Your task to perform on an android device: toggle location history Image 0: 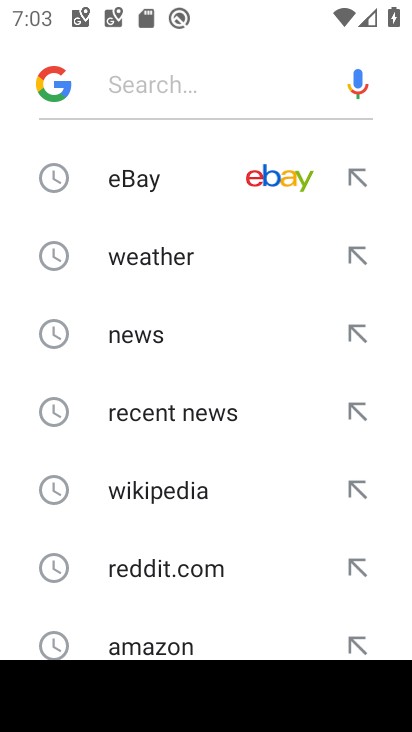
Step 0: press home button
Your task to perform on an android device: toggle location history Image 1: 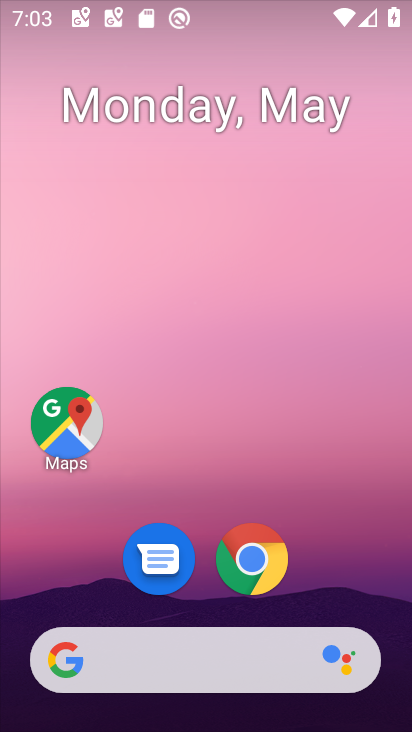
Step 1: drag from (398, 609) to (281, 15)
Your task to perform on an android device: toggle location history Image 2: 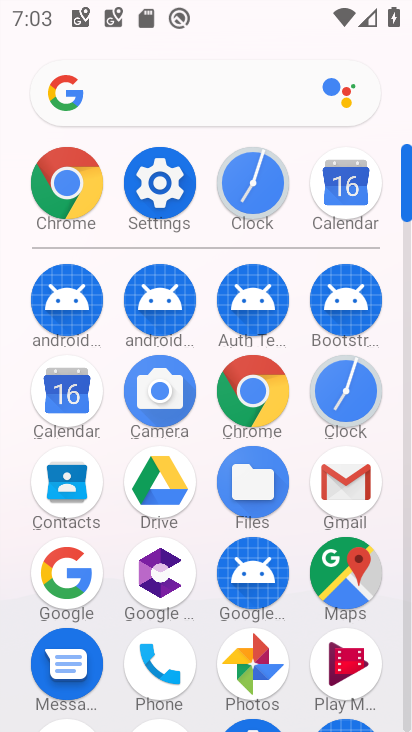
Step 2: click (144, 202)
Your task to perform on an android device: toggle location history Image 3: 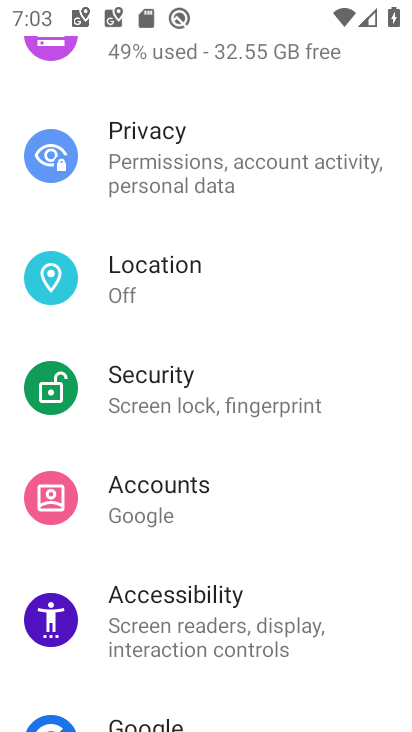
Step 3: click (171, 295)
Your task to perform on an android device: toggle location history Image 4: 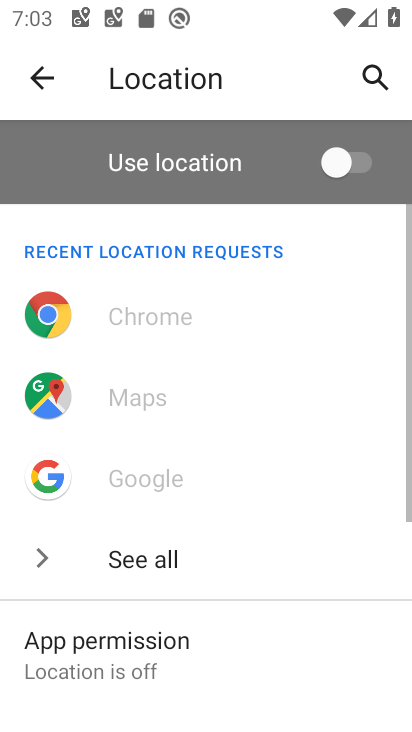
Step 4: drag from (116, 611) to (166, 184)
Your task to perform on an android device: toggle location history Image 5: 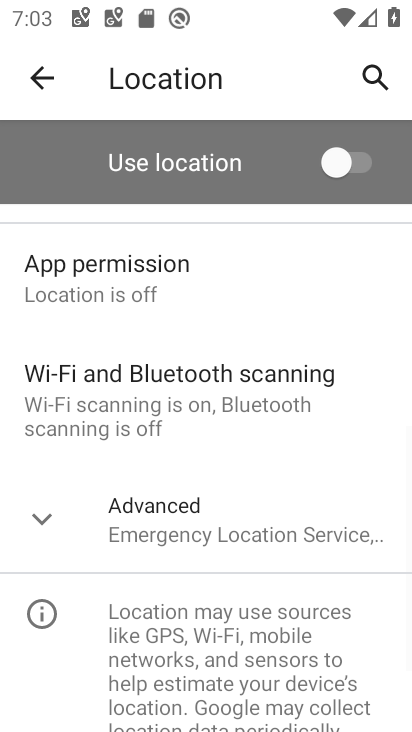
Step 5: click (209, 534)
Your task to perform on an android device: toggle location history Image 6: 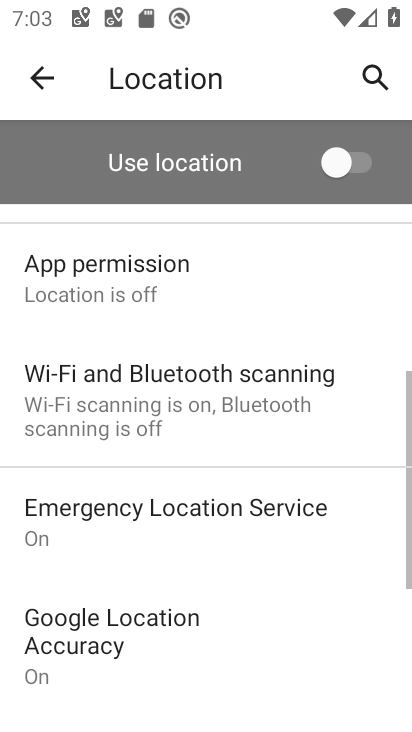
Step 6: drag from (167, 609) to (240, 271)
Your task to perform on an android device: toggle location history Image 7: 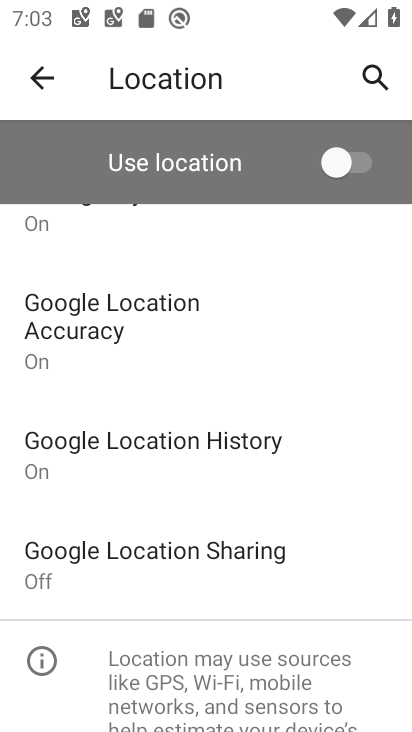
Step 7: click (160, 453)
Your task to perform on an android device: toggle location history Image 8: 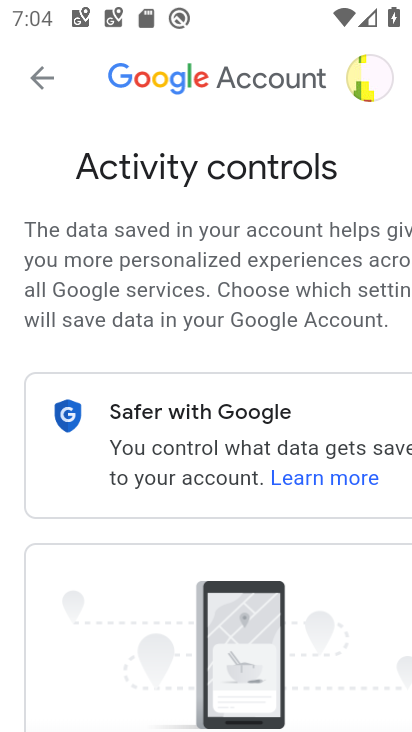
Step 8: drag from (277, 601) to (270, 111)
Your task to perform on an android device: toggle location history Image 9: 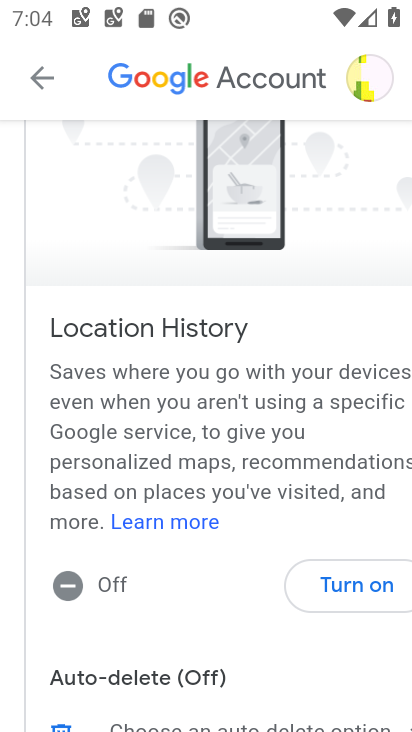
Step 9: click (350, 576)
Your task to perform on an android device: toggle location history Image 10: 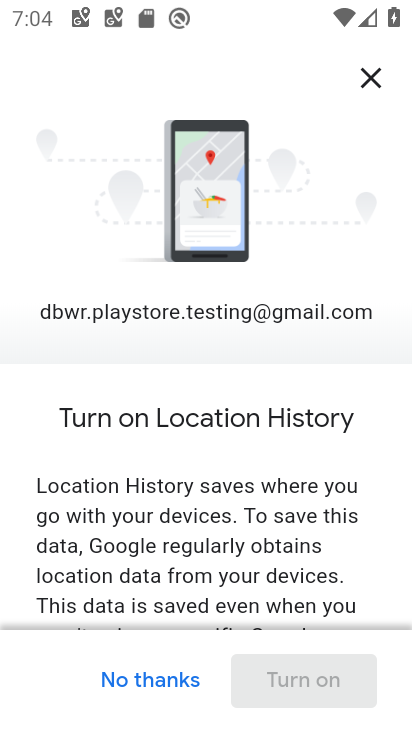
Step 10: task complete